Your task to perform on an android device: turn off notifications in google photos Image 0: 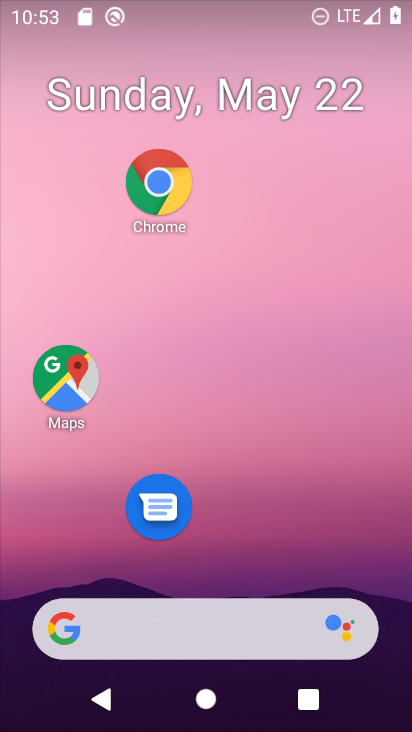
Step 0: drag from (257, 692) to (277, 4)
Your task to perform on an android device: turn off notifications in google photos Image 1: 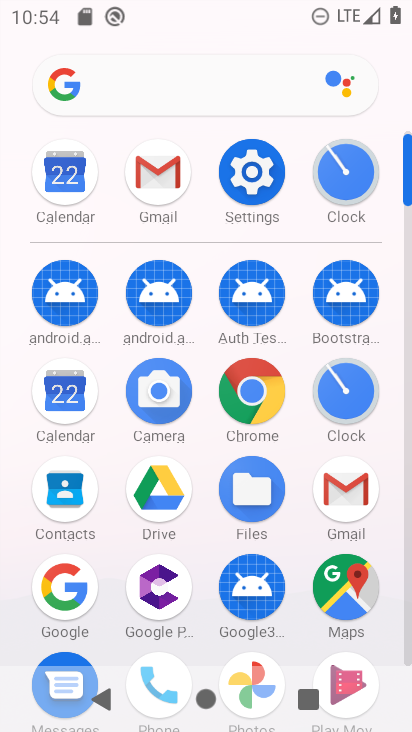
Step 1: click (254, 654)
Your task to perform on an android device: turn off notifications in google photos Image 2: 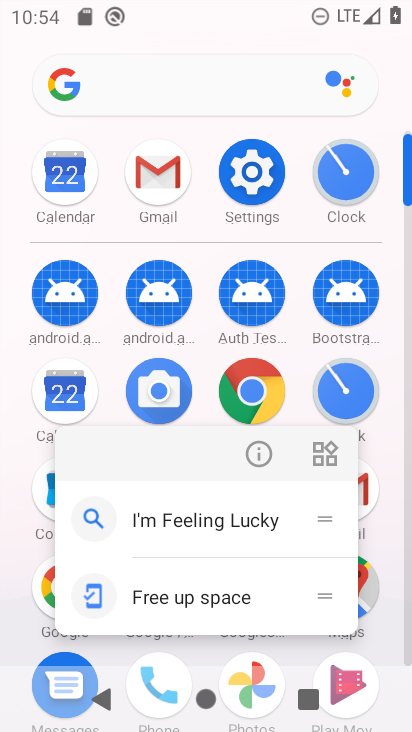
Step 2: click (261, 453)
Your task to perform on an android device: turn off notifications in google photos Image 3: 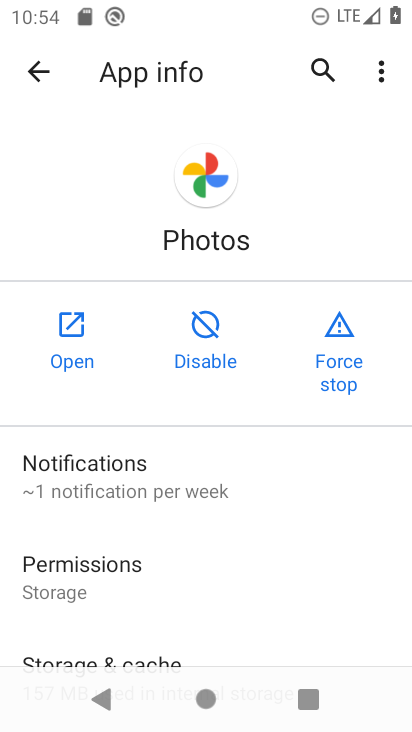
Step 3: click (250, 485)
Your task to perform on an android device: turn off notifications in google photos Image 4: 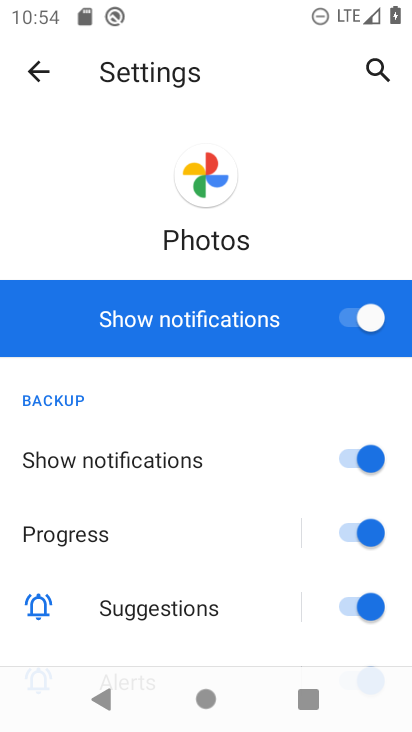
Step 4: click (372, 319)
Your task to perform on an android device: turn off notifications in google photos Image 5: 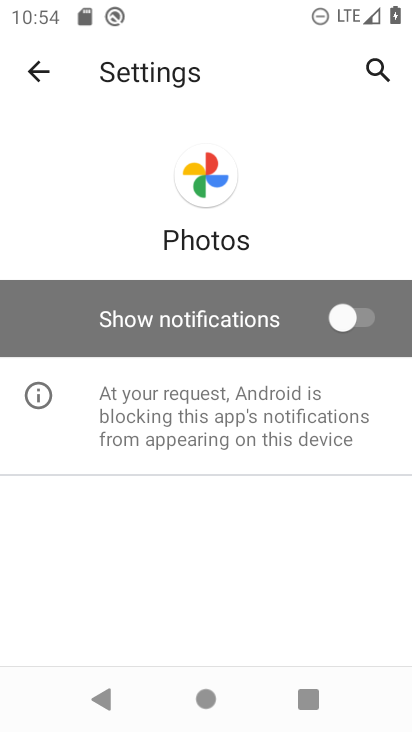
Step 5: task complete